Your task to perform on an android device: turn notification dots on Image 0: 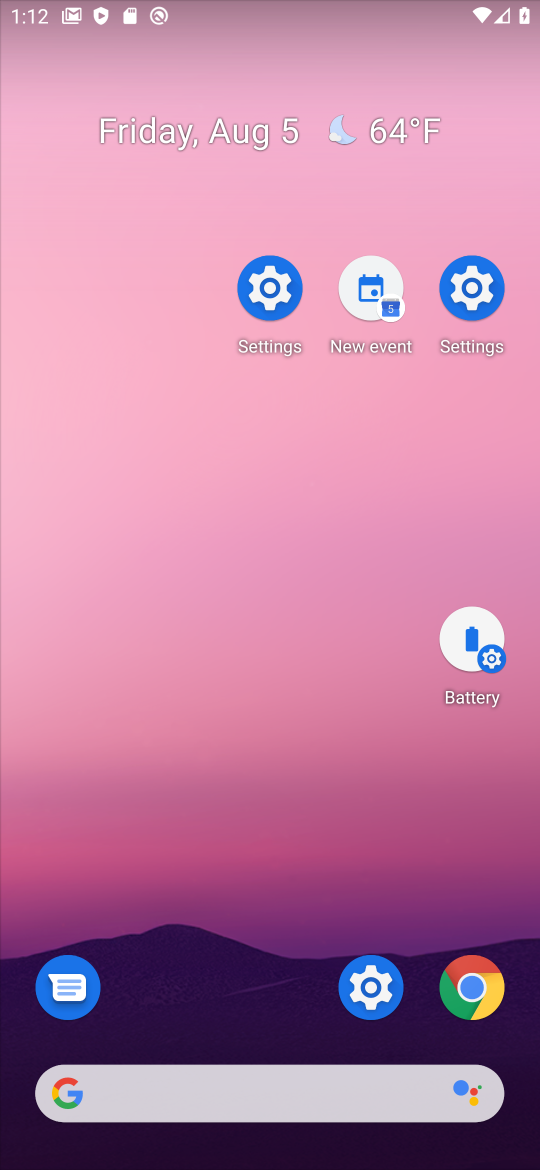
Step 0: drag from (205, 487) to (244, 297)
Your task to perform on an android device: turn notification dots on Image 1: 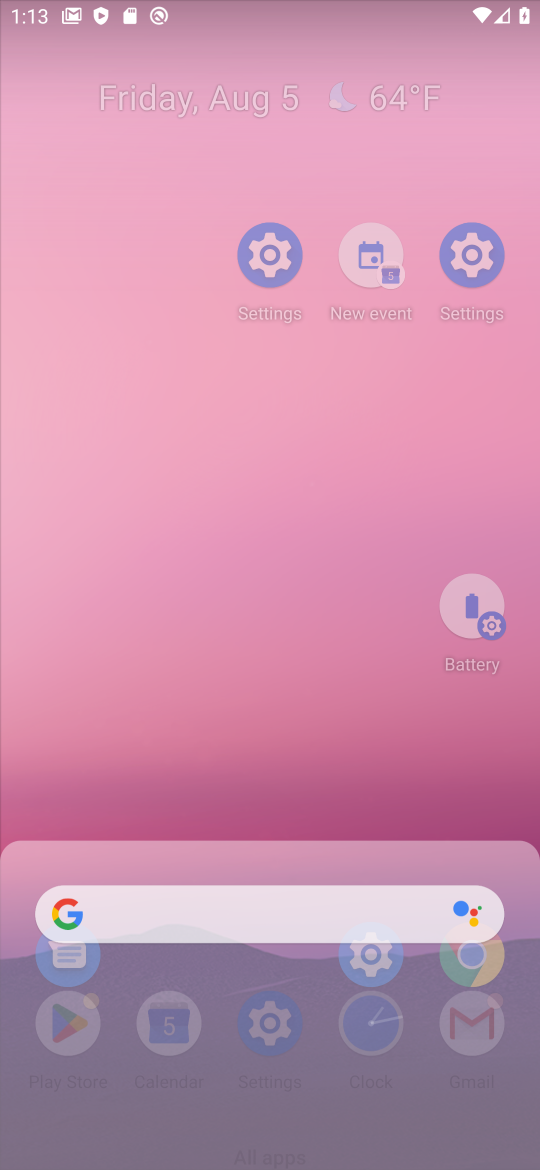
Step 1: drag from (215, 767) to (85, 274)
Your task to perform on an android device: turn notification dots on Image 2: 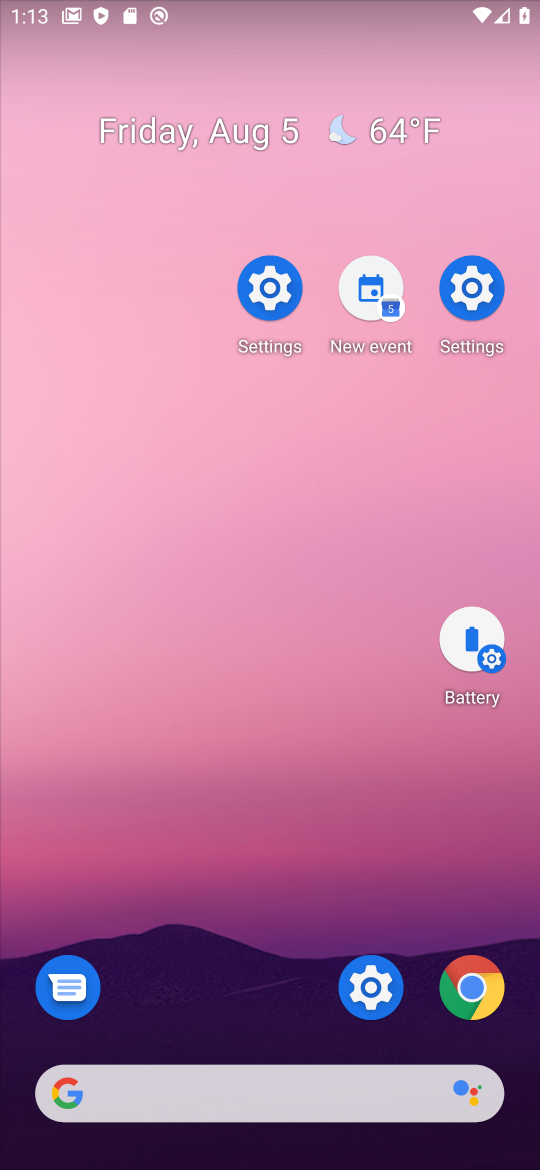
Step 2: drag from (246, 281) to (256, 424)
Your task to perform on an android device: turn notification dots on Image 3: 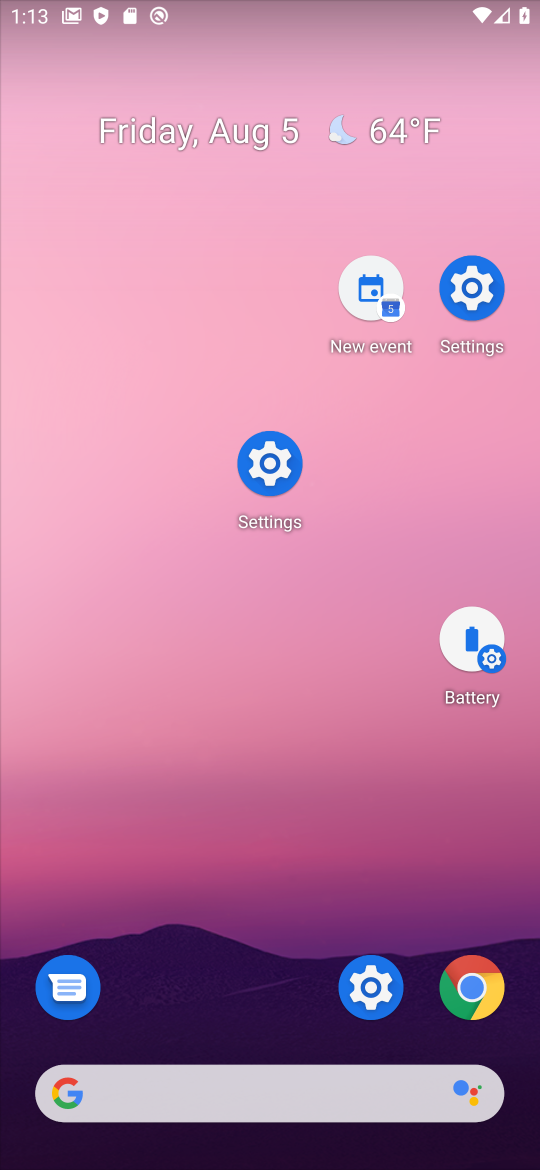
Step 3: drag from (262, 1069) to (275, 22)
Your task to perform on an android device: turn notification dots on Image 4: 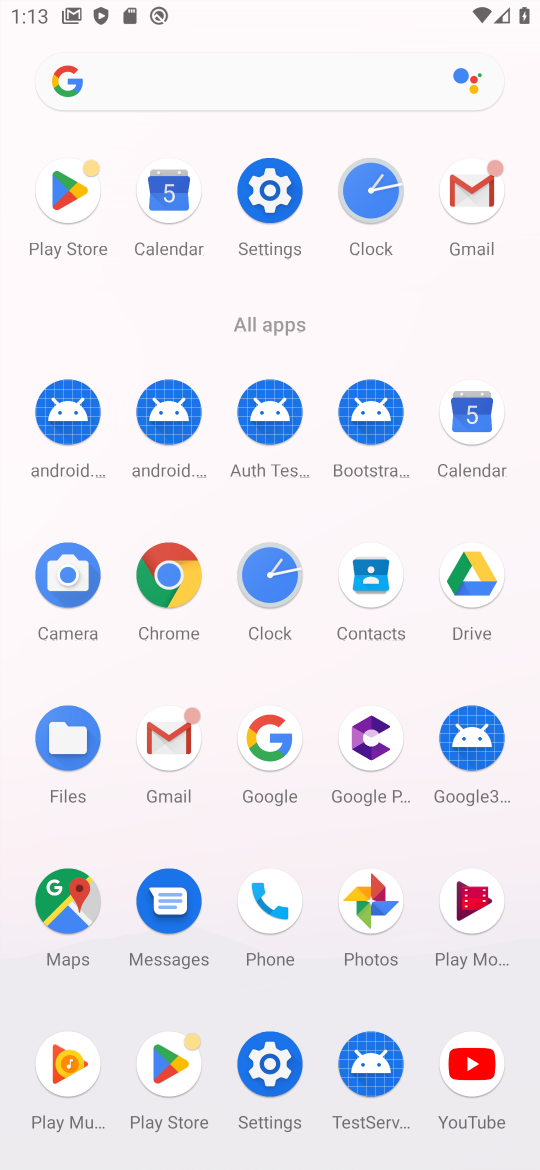
Step 4: click (292, 196)
Your task to perform on an android device: turn notification dots on Image 5: 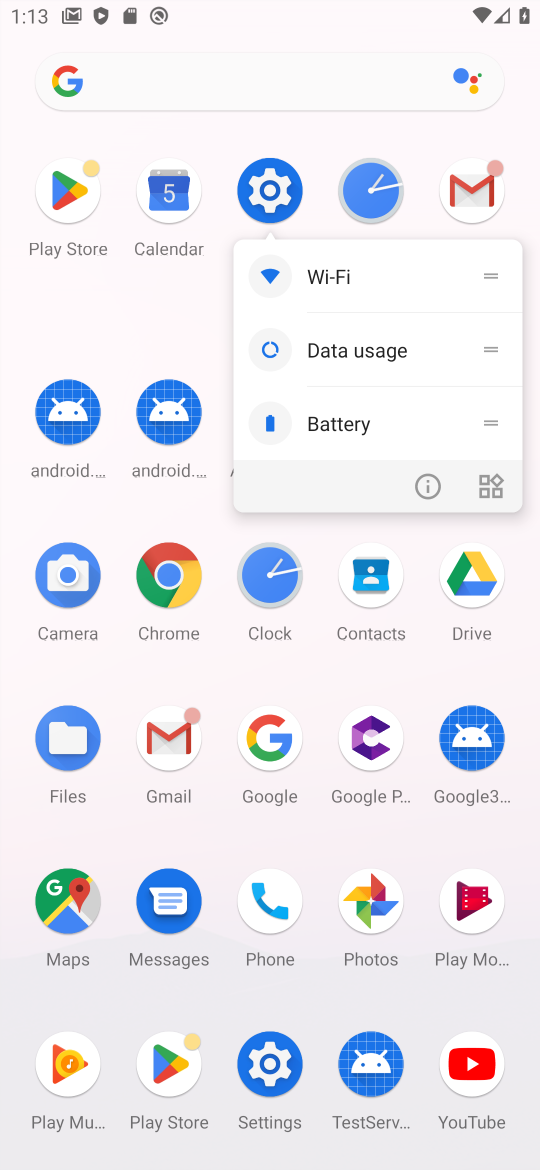
Step 5: click (358, 422)
Your task to perform on an android device: turn notification dots on Image 6: 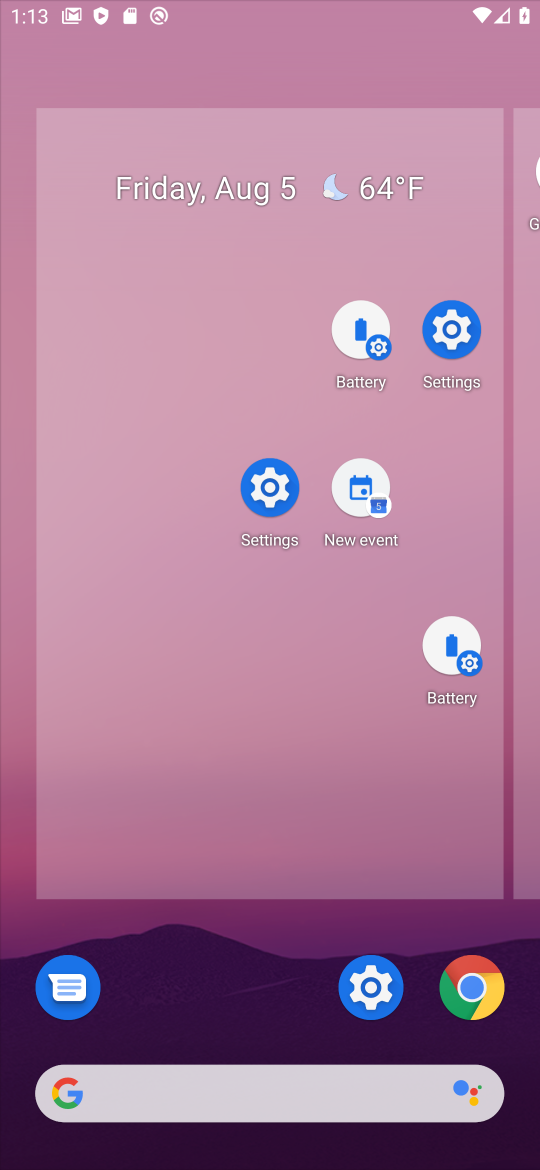
Step 6: click (238, 93)
Your task to perform on an android device: turn notification dots on Image 7: 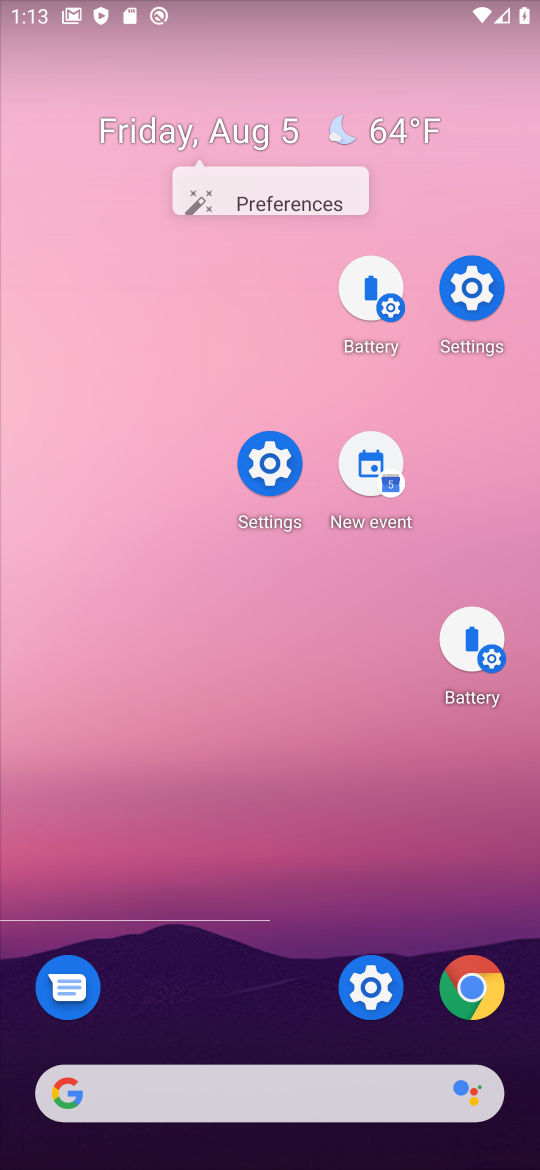
Step 7: task complete